Your task to perform on an android device: empty trash in google photos Image 0: 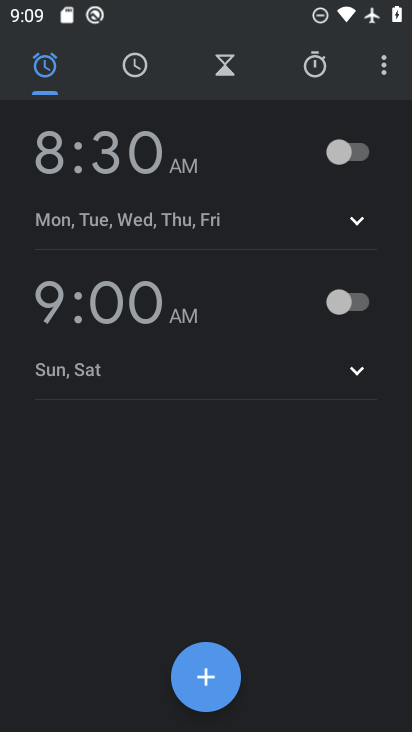
Step 0: press home button
Your task to perform on an android device: empty trash in google photos Image 1: 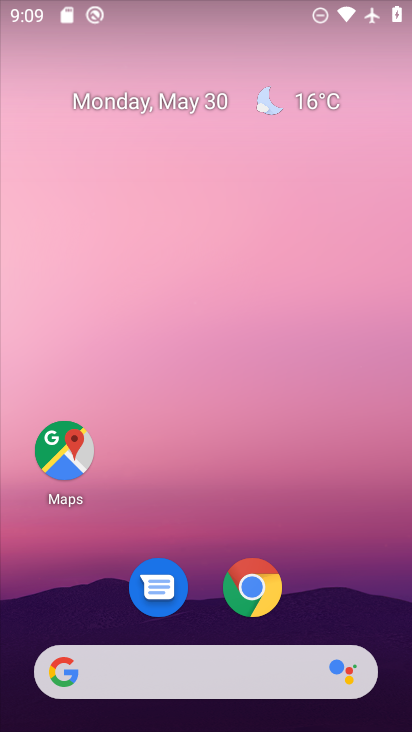
Step 1: drag from (190, 658) to (297, 157)
Your task to perform on an android device: empty trash in google photos Image 2: 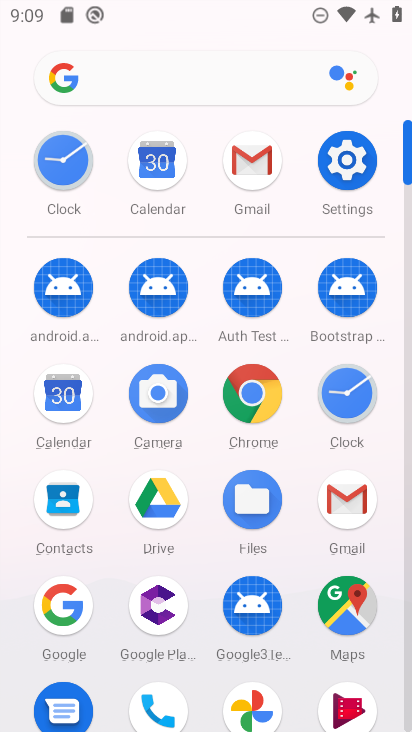
Step 2: drag from (219, 632) to (268, 197)
Your task to perform on an android device: empty trash in google photos Image 3: 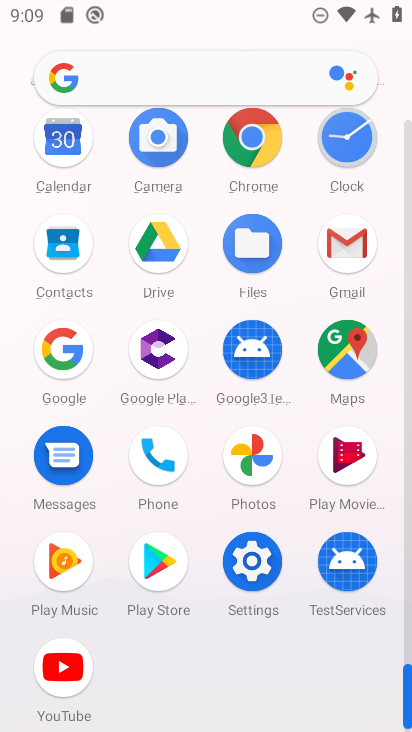
Step 3: click (249, 454)
Your task to perform on an android device: empty trash in google photos Image 4: 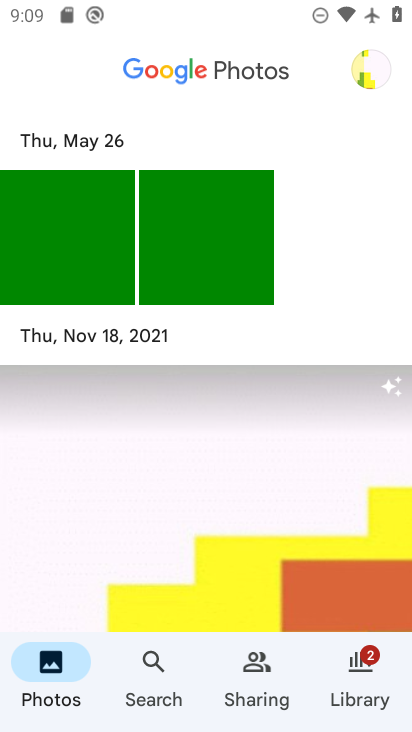
Step 4: click (361, 694)
Your task to perform on an android device: empty trash in google photos Image 5: 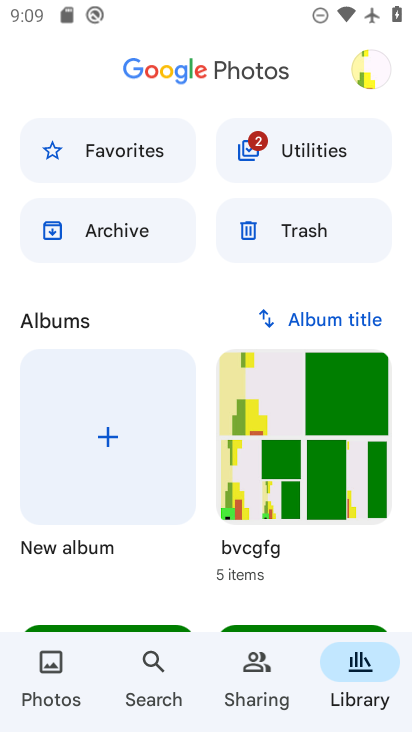
Step 5: click (318, 223)
Your task to perform on an android device: empty trash in google photos Image 6: 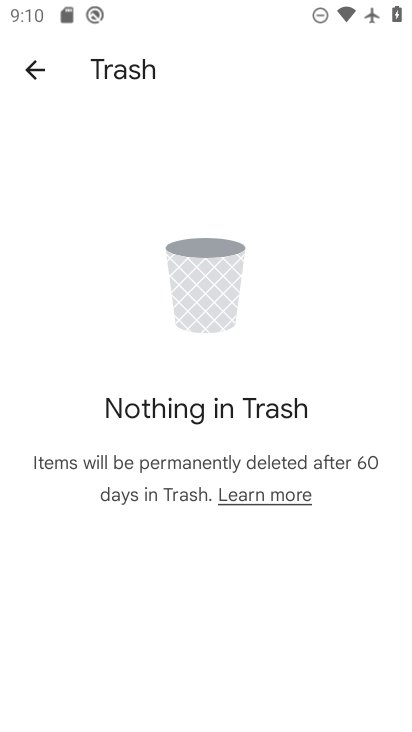
Step 6: task complete